Your task to perform on an android device: Open the web browser Image 0: 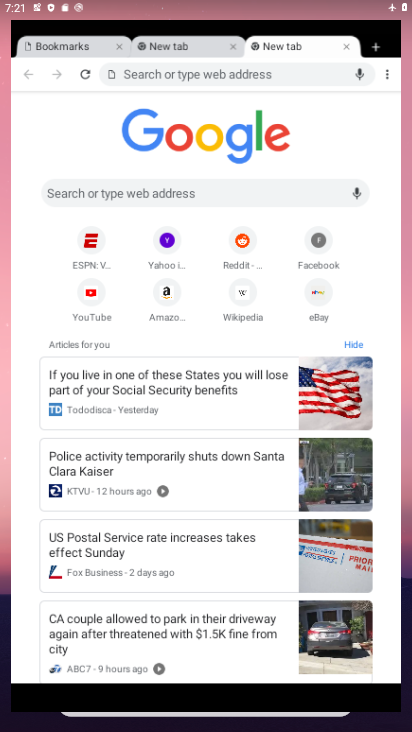
Step 0: drag from (363, 661) to (176, 8)
Your task to perform on an android device: Open the web browser Image 1: 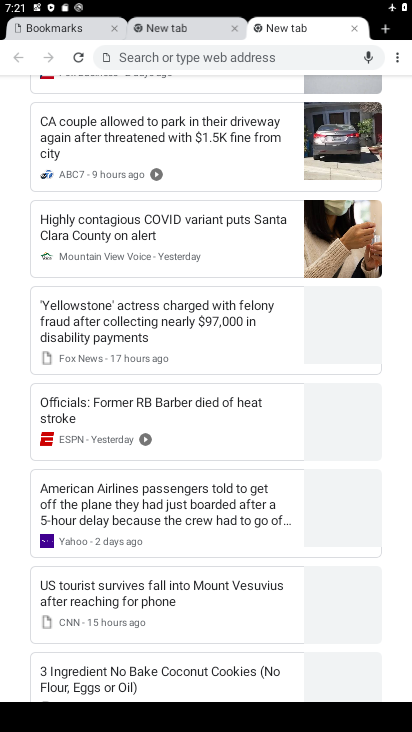
Step 1: press home button
Your task to perform on an android device: Open the web browser Image 2: 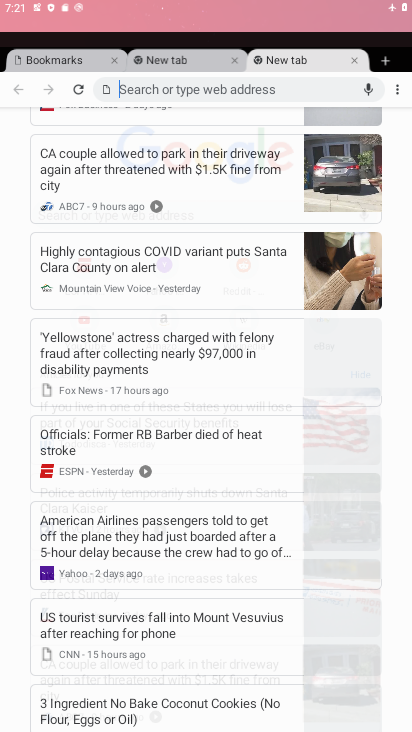
Step 2: drag from (383, 669) to (294, 48)
Your task to perform on an android device: Open the web browser Image 3: 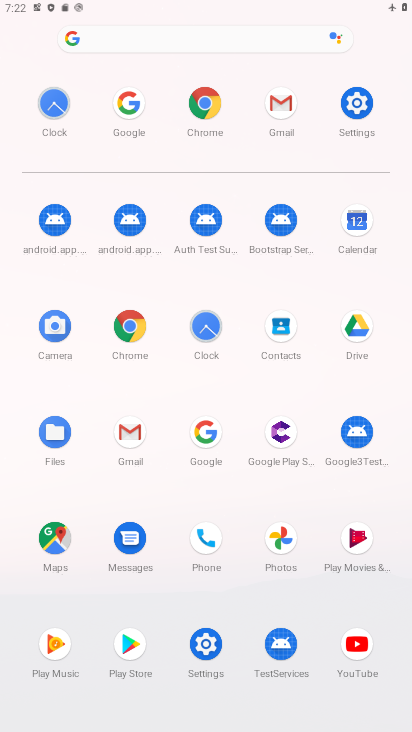
Step 3: click (219, 437)
Your task to perform on an android device: Open the web browser Image 4: 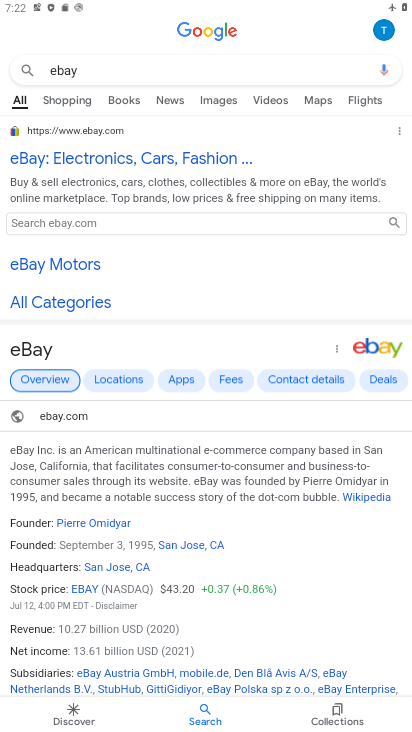
Step 4: press back button
Your task to perform on an android device: Open the web browser Image 5: 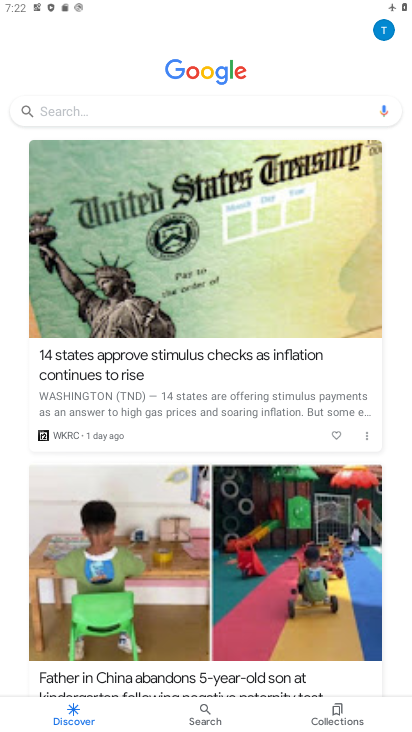
Step 5: click (103, 105)
Your task to perform on an android device: Open the web browser Image 6: 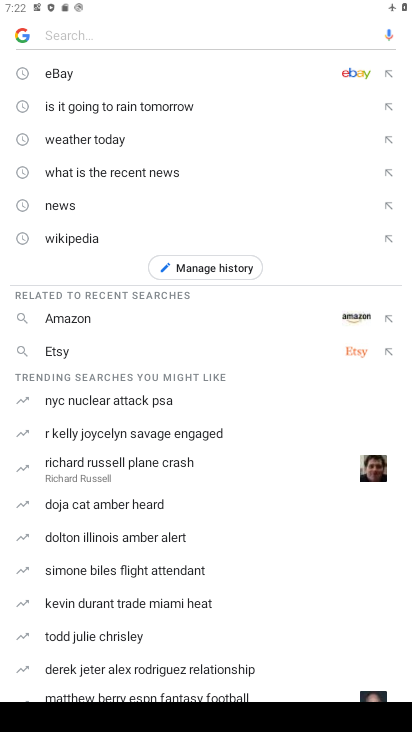
Step 6: type "web browser"
Your task to perform on an android device: Open the web browser Image 7: 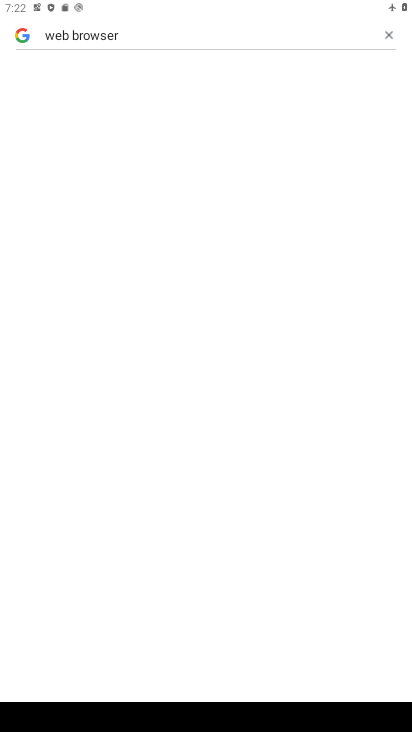
Step 7: task complete